Your task to perform on an android device: turn off smart reply in the gmail app Image 0: 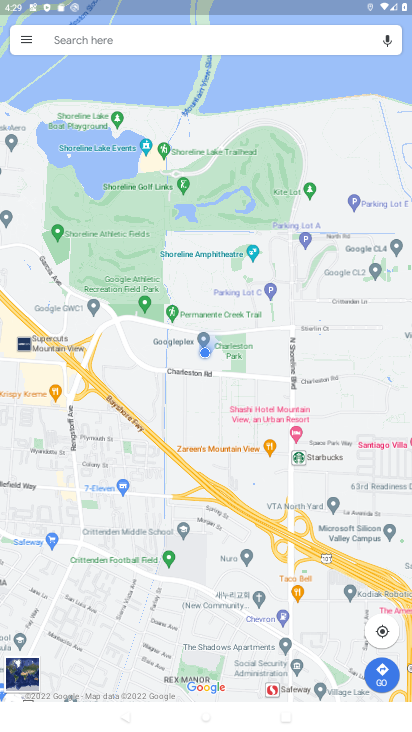
Step 0: press home button
Your task to perform on an android device: turn off smart reply in the gmail app Image 1: 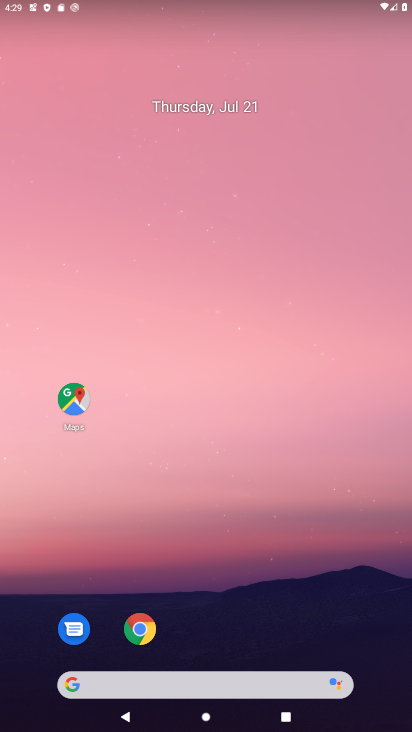
Step 1: drag from (277, 591) to (235, 18)
Your task to perform on an android device: turn off smart reply in the gmail app Image 2: 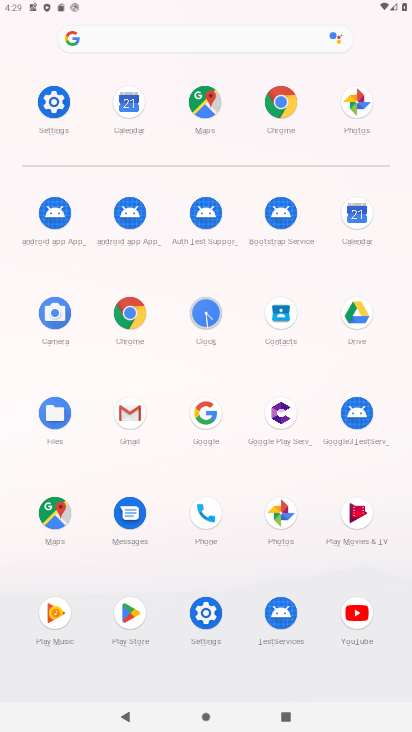
Step 2: click (125, 410)
Your task to perform on an android device: turn off smart reply in the gmail app Image 3: 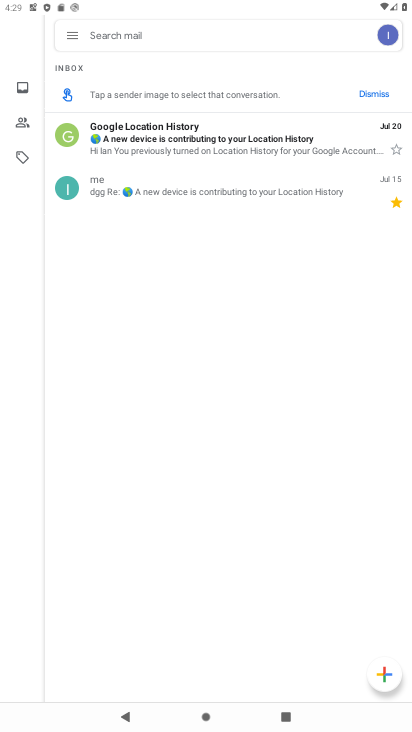
Step 3: click (67, 32)
Your task to perform on an android device: turn off smart reply in the gmail app Image 4: 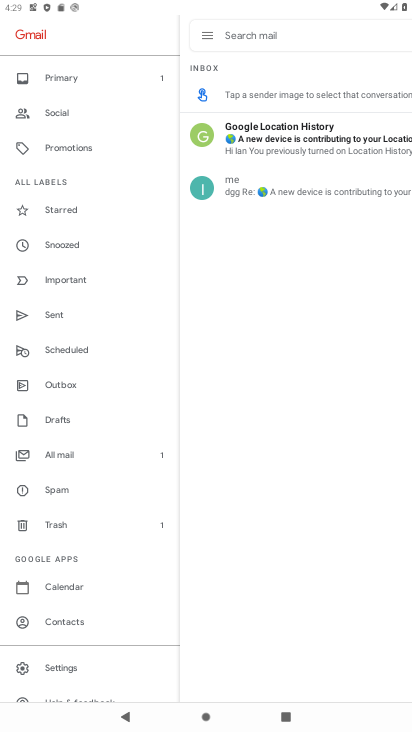
Step 4: click (68, 668)
Your task to perform on an android device: turn off smart reply in the gmail app Image 5: 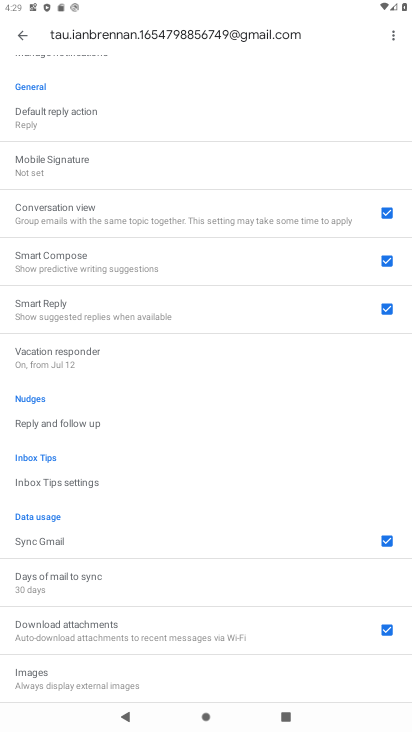
Step 5: click (391, 309)
Your task to perform on an android device: turn off smart reply in the gmail app Image 6: 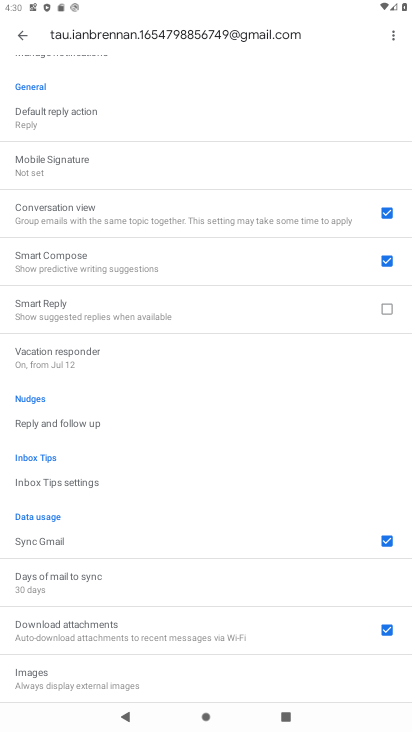
Step 6: task complete